Your task to perform on an android device: Go to CNN.com Image 0: 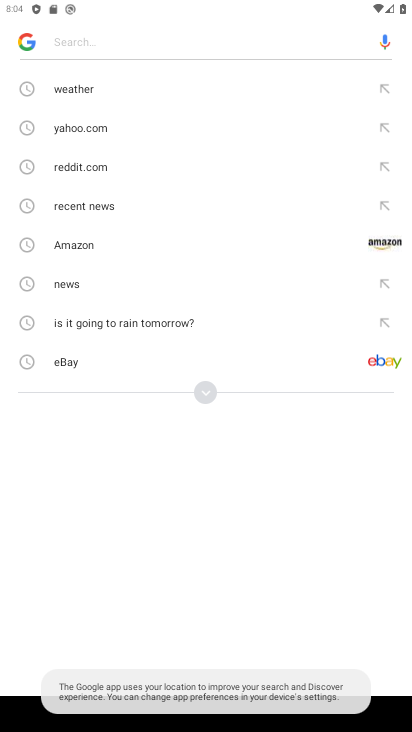
Step 0: press back button
Your task to perform on an android device: Go to CNN.com Image 1: 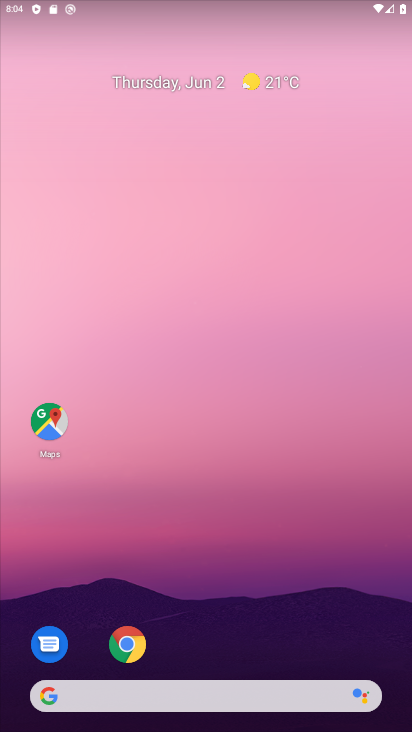
Step 1: drag from (226, 505) to (163, 1)
Your task to perform on an android device: Go to CNN.com Image 2: 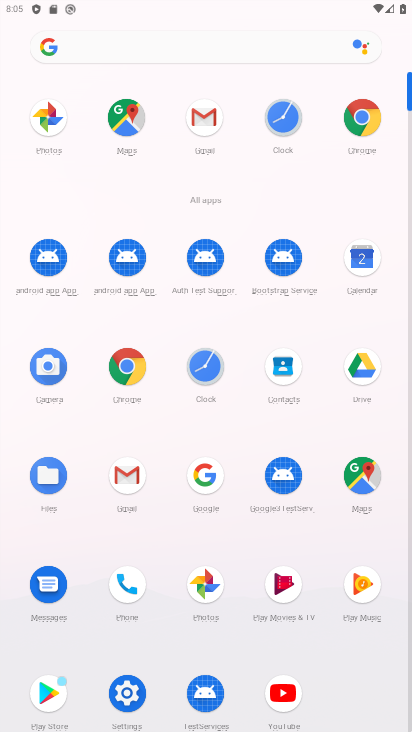
Step 2: click (128, 363)
Your task to perform on an android device: Go to CNN.com Image 3: 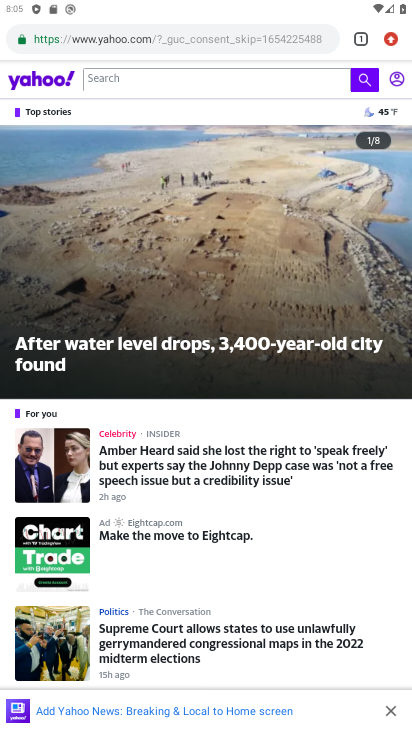
Step 3: click (180, 37)
Your task to perform on an android device: Go to CNN.com Image 4: 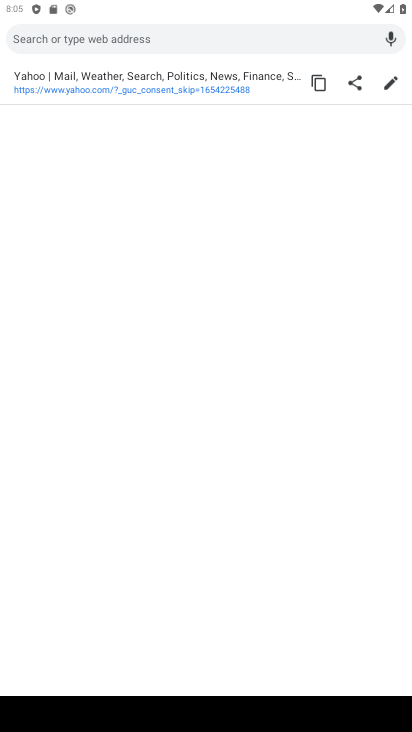
Step 4: type "CNN.com"
Your task to perform on an android device: Go to CNN.com Image 5: 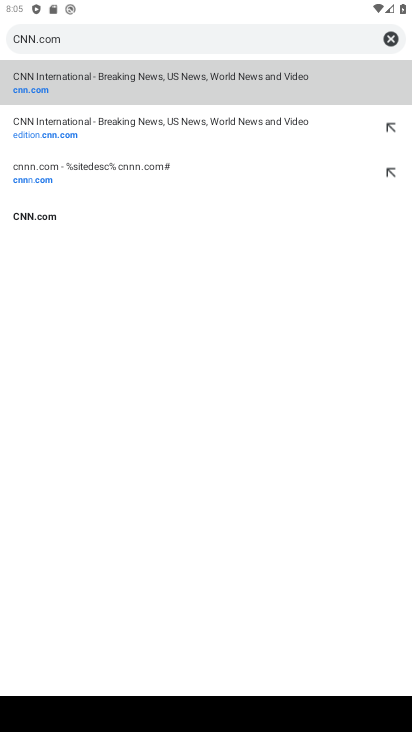
Step 5: click (90, 86)
Your task to perform on an android device: Go to CNN.com Image 6: 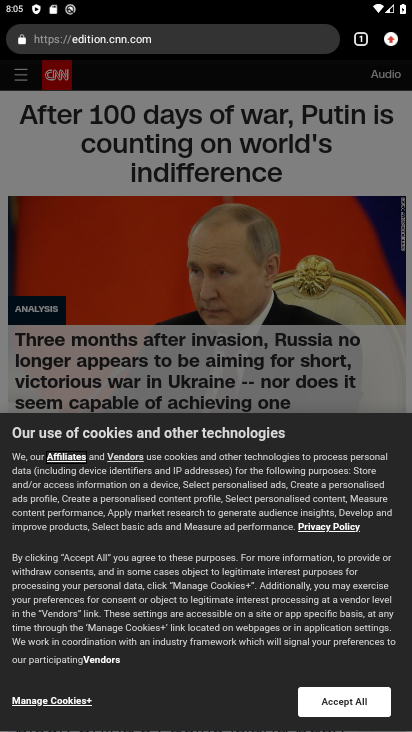
Step 6: task complete